Your task to perform on an android device: What's the weather? Image 0: 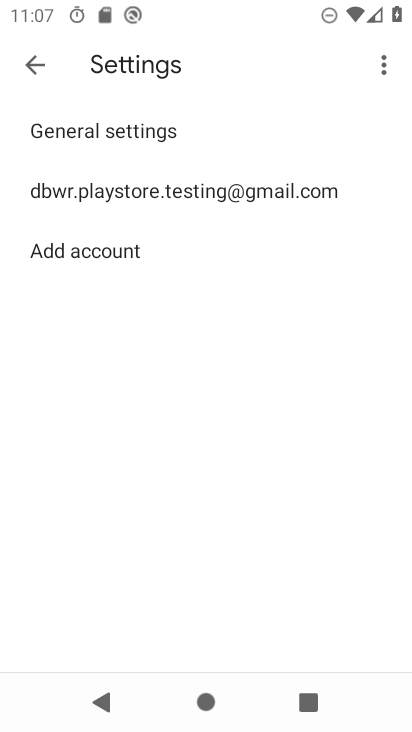
Step 0: press home button
Your task to perform on an android device: What's the weather? Image 1: 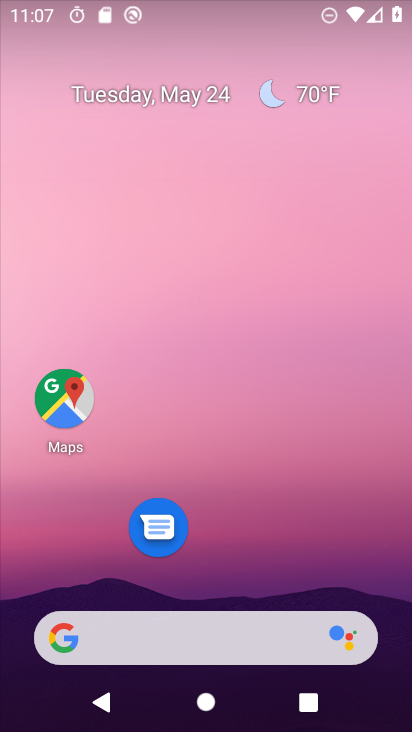
Step 1: drag from (247, 543) to (312, 72)
Your task to perform on an android device: What's the weather? Image 2: 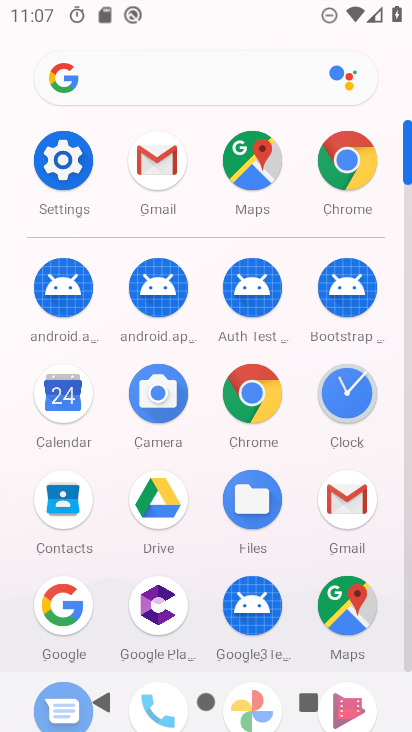
Step 2: click (31, 606)
Your task to perform on an android device: What's the weather? Image 3: 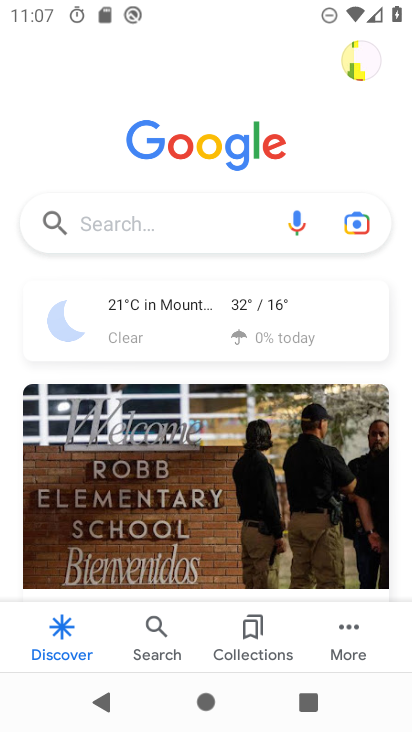
Step 3: click (185, 229)
Your task to perform on an android device: What's the weather? Image 4: 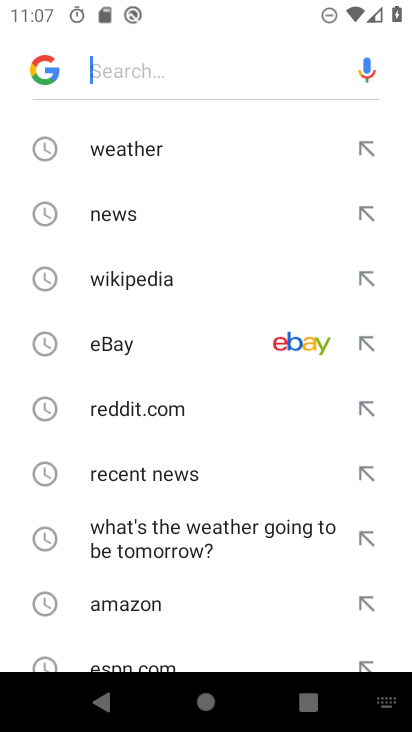
Step 4: click (161, 155)
Your task to perform on an android device: What's the weather? Image 5: 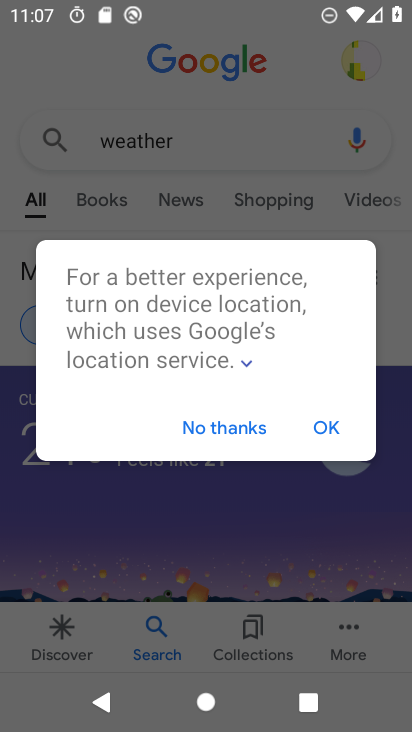
Step 5: click (204, 443)
Your task to perform on an android device: What's the weather? Image 6: 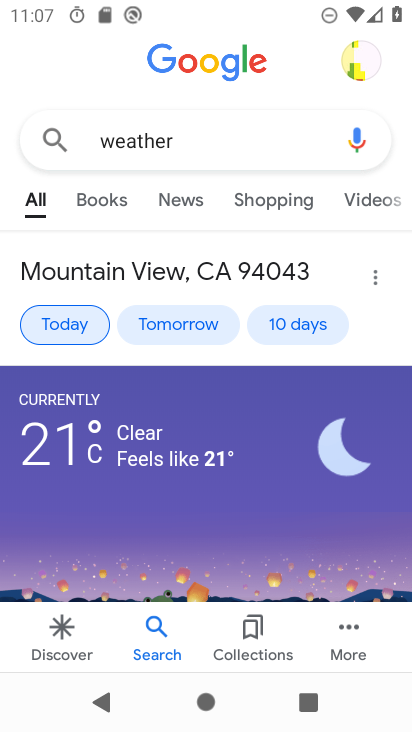
Step 6: task complete